Your task to perform on an android device: Search for pizza restaurants on Maps Image 0: 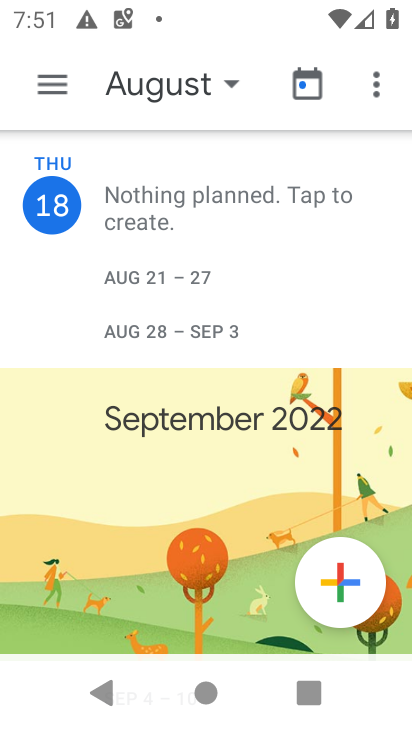
Step 0: press home button
Your task to perform on an android device: Search for pizza restaurants on Maps Image 1: 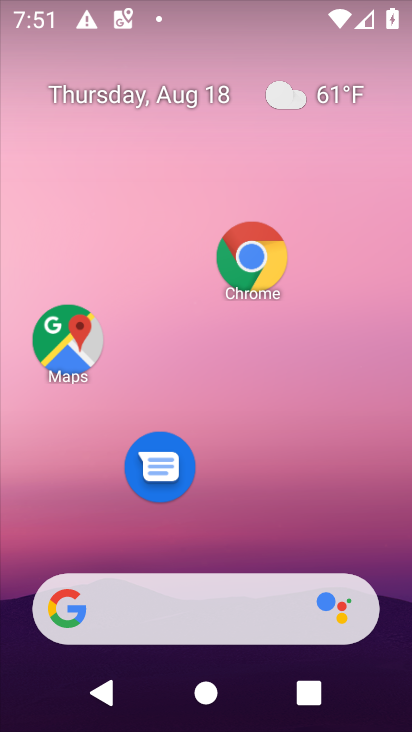
Step 1: type "pizza restaurants"
Your task to perform on an android device: Search for pizza restaurants on Maps Image 2: 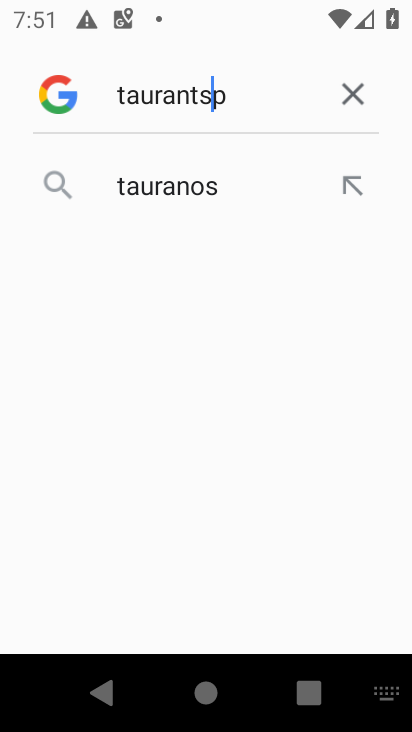
Step 2: press enter
Your task to perform on an android device: Search for pizza restaurants on Maps Image 3: 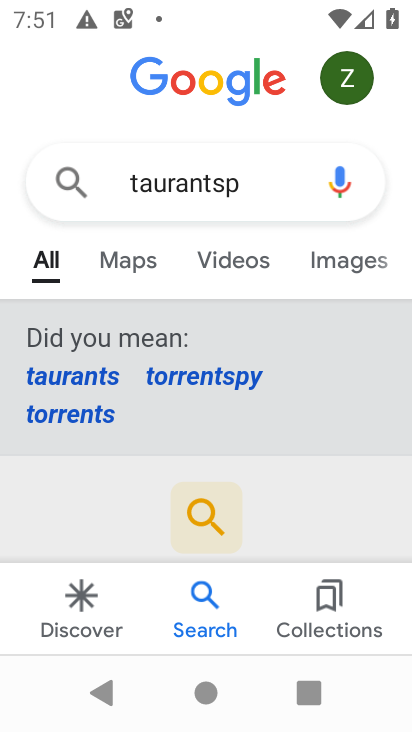
Step 3: task complete